Your task to perform on an android device: Open maps Image 0: 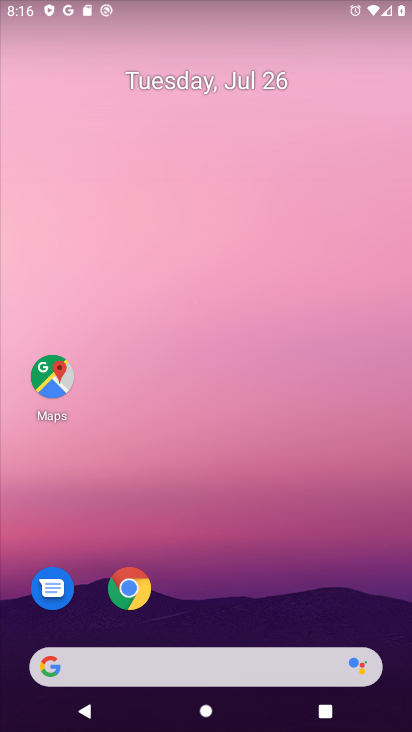
Step 0: drag from (237, 587) to (251, 169)
Your task to perform on an android device: Open maps Image 1: 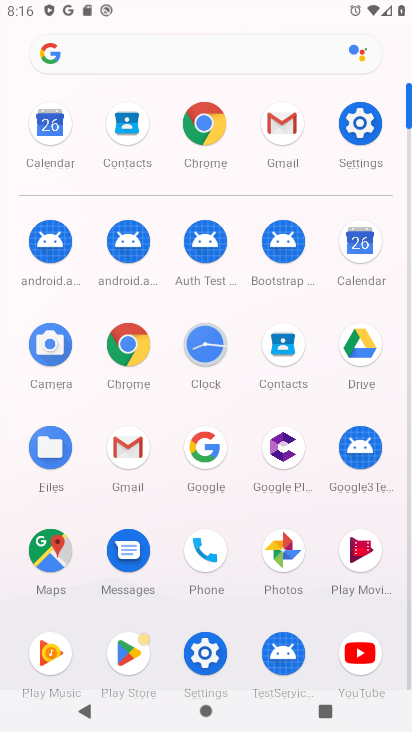
Step 1: drag from (185, 443) to (228, 136)
Your task to perform on an android device: Open maps Image 2: 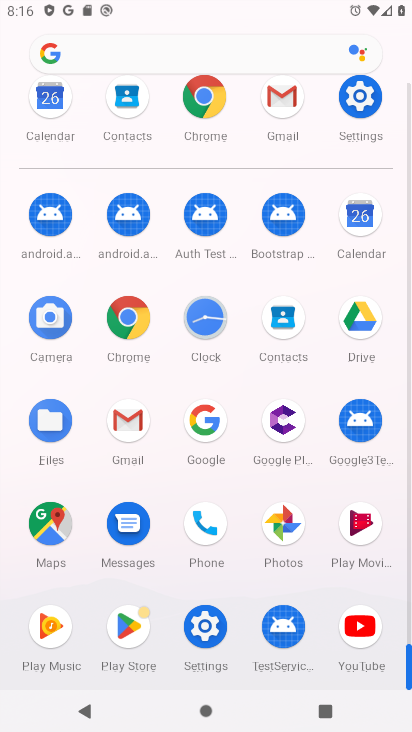
Step 2: click (58, 532)
Your task to perform on an android device: Open maps Image 3: 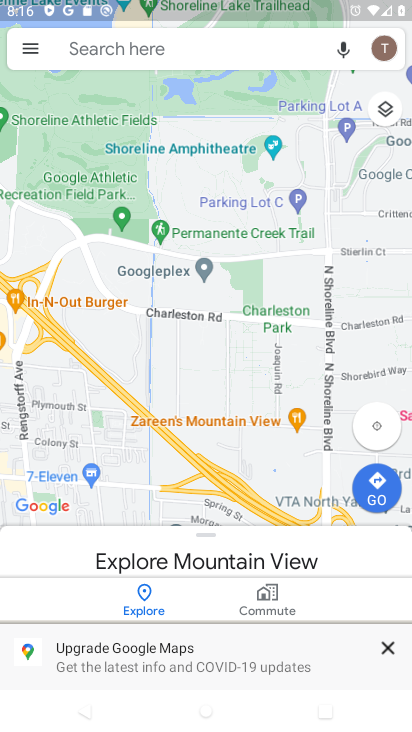
Step 3: task complete